Your task to perform on an android device: Go to Google maps Image 0: 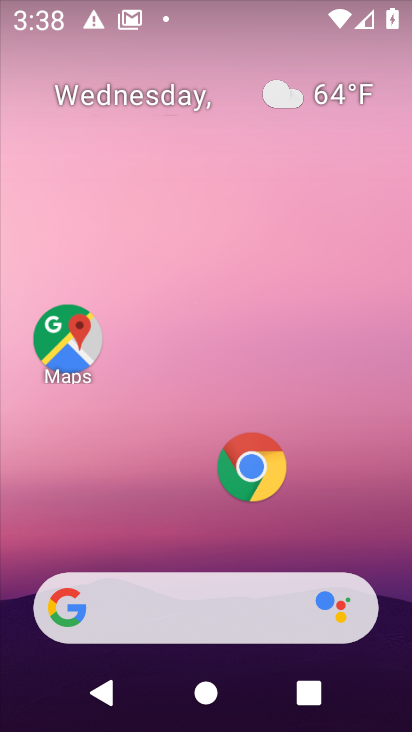
Step 0: click (65, 324)
Your task to perform on an android device: Go to Google maps Image 1: 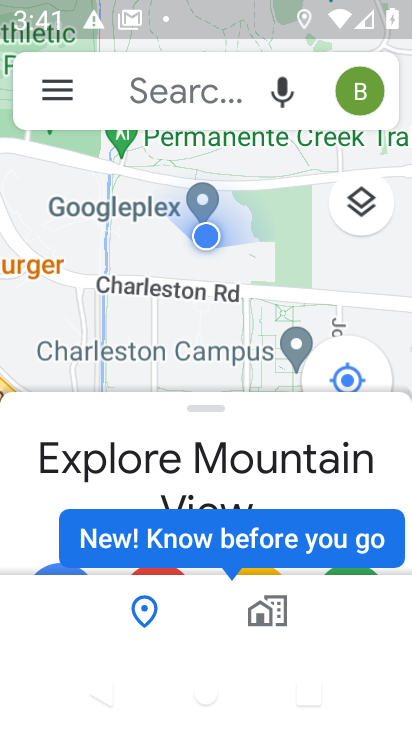
Step 1: task complete